Your task to perform on an android device: toggle javascript in the chrome app Image 0: 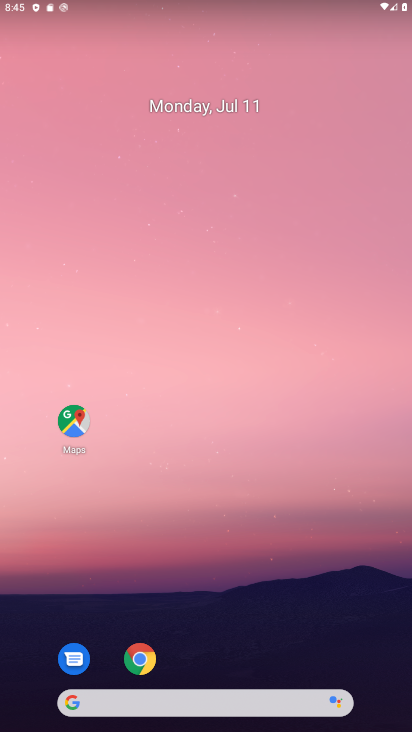
Step 0: drag from (231, 717) to (229, 156)
Your task to perform on an android device: toggle javascript in the chrome app Image 1: 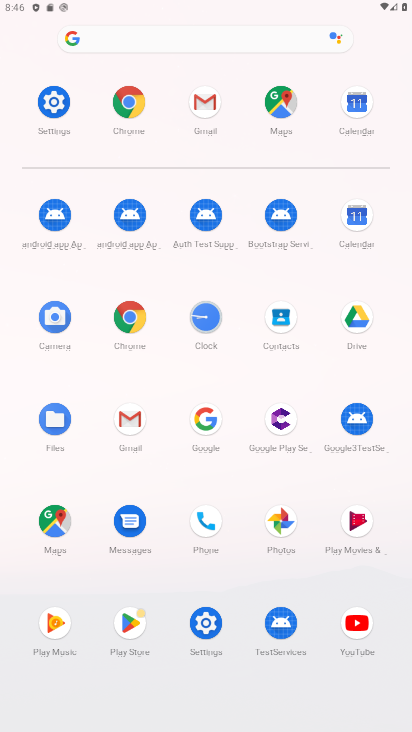
Step 1: click (122, 319)
Your task to perform on an android device: toggle javascript in the chrome app Image 2: 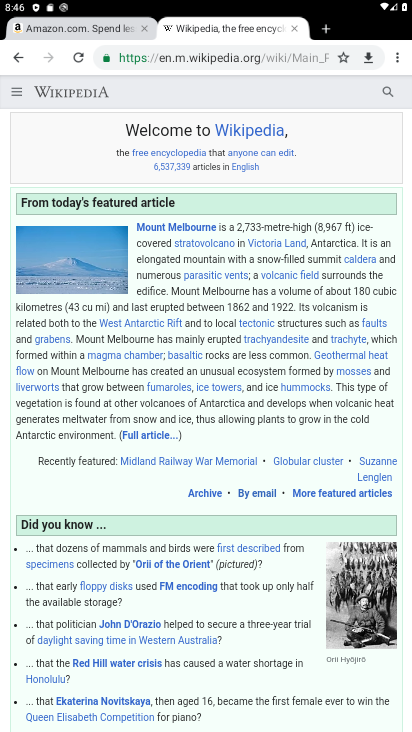
Step 2: click (399, 60)
Your task to perform on an android device: toggle javascript in the chrome app Image 3: 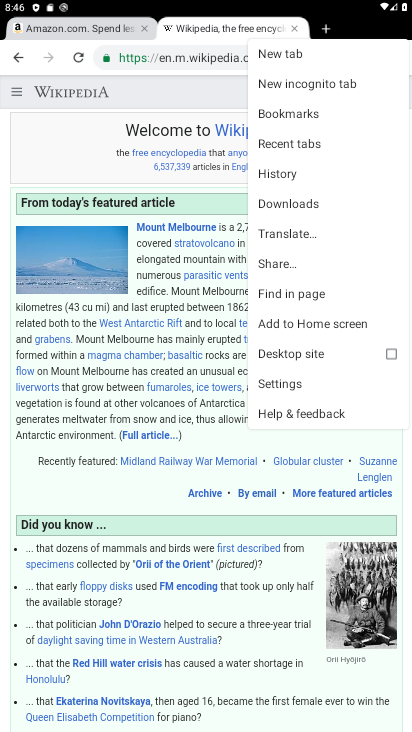
Step 3: click (275, 382)
Your task to perform on an android device: toggle javascript in the chrome app Image 4: 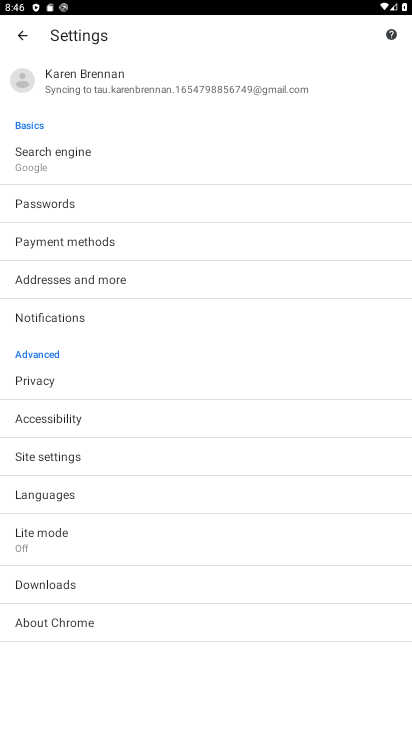
Step 4: click (45, 458)
Your task to perform on an android device: toggle javascript in the chrome app Image 5: 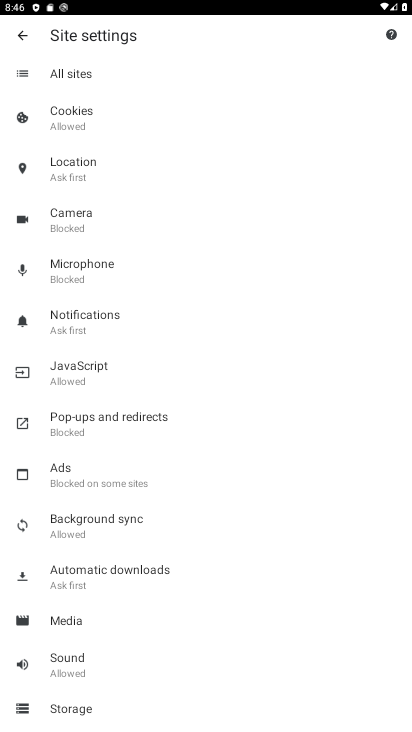
Step 5: click (71, 369)
Your task to perform on an android device: toggle javascript in the chrome app Image 6: 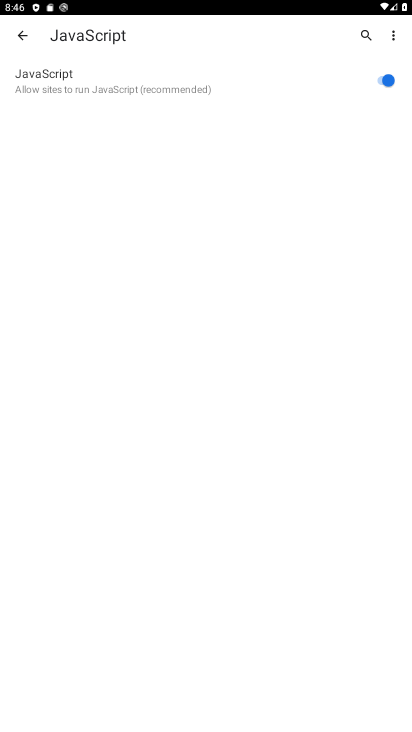
Step 6: click (382, 79)
Your task to perform on an android device: toggle javascript in the chrome app Image 7: 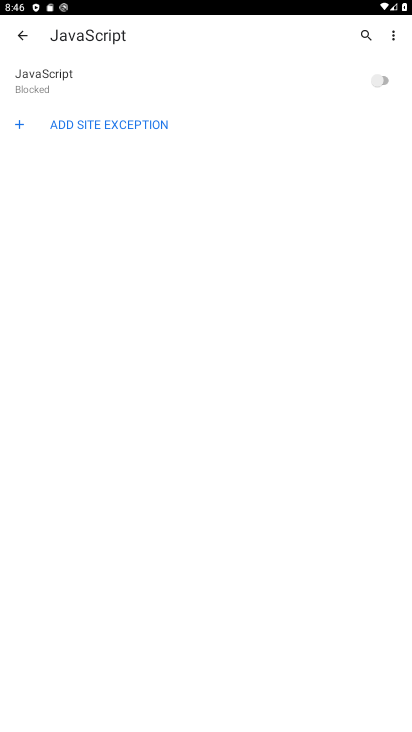
Step 7: task complete